Your task to perform on an android device: Open battery settings Image 0: 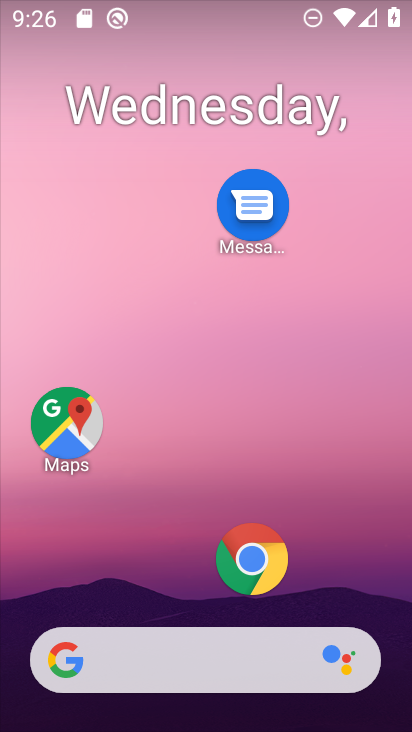
Step 0: drag from (133, 653) to (233, 184)
Your task to perform on an android device: Open battery settings Image 1: 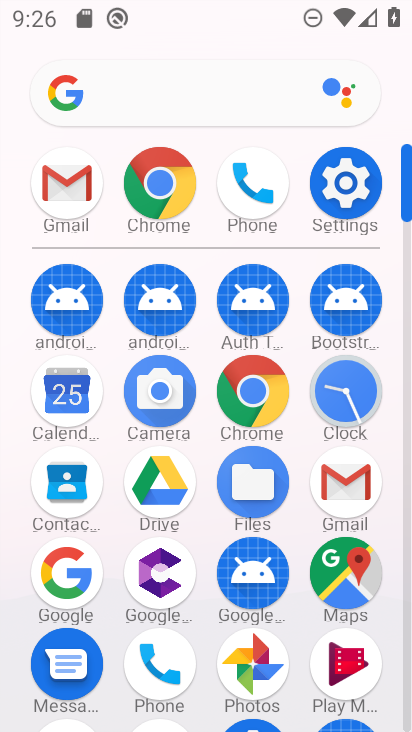
Step 1: click (326, 194)
Your task to perform on an android device: Open battery settings Image 2: 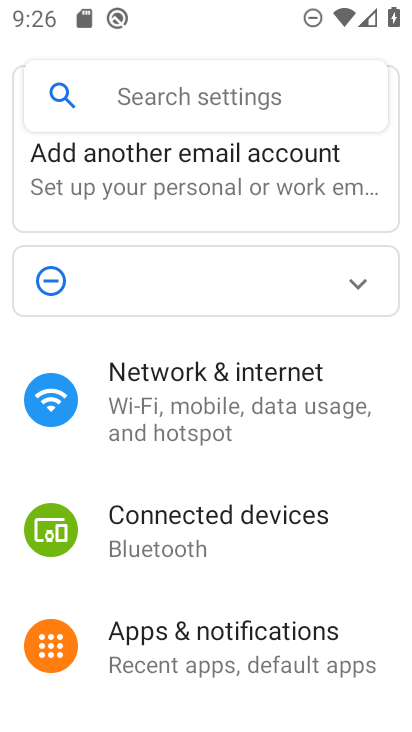
Step 2: drag from (233, 515) to (257, 315)
Your task to perform on an android device: Open battery settings Image 3: 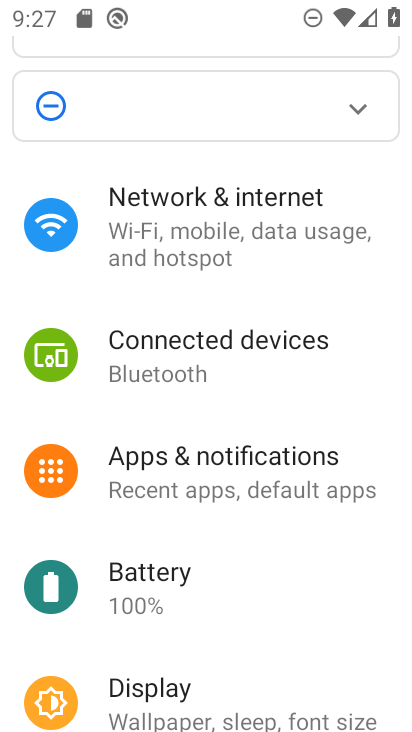
Step 3: click (194, 598)
Your task to perform on an android device: Open battery settings Image 4: 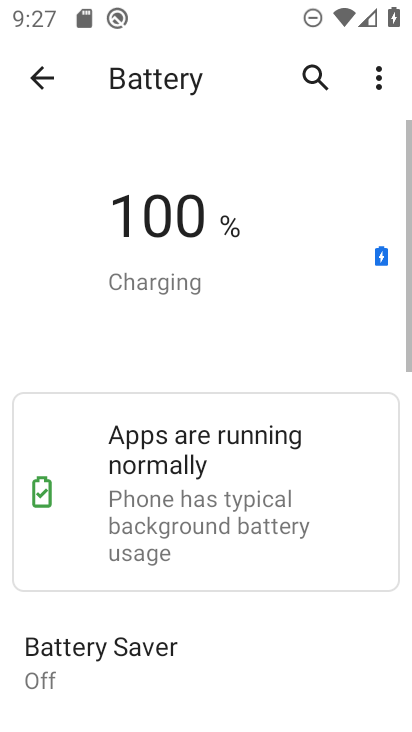
Step 4: task complete